Your task to perform on an android device: Turn off the flashlight Image 0: 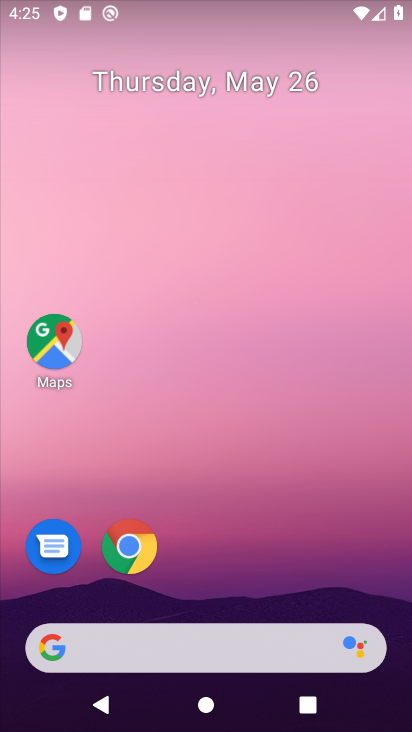
Step 0: drag from (210, 5) to (317, 515)
Your task to perform on an android device: Turn off the flashlight Image 1: 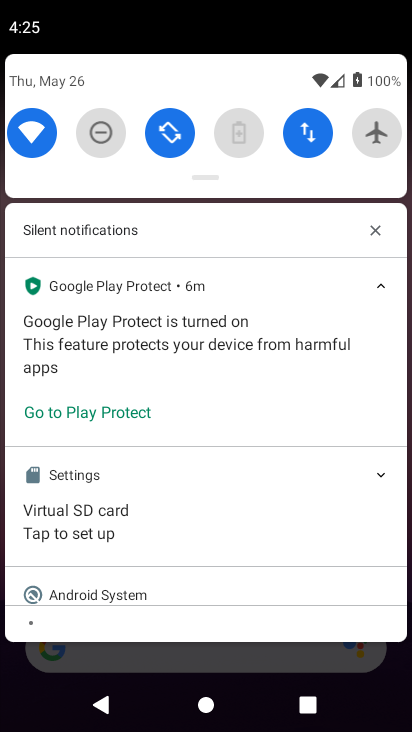
Step 1: drag from (210, 156) to (292, 618)
Your task to perform on an android device: Turn off the flashlight Image 2: 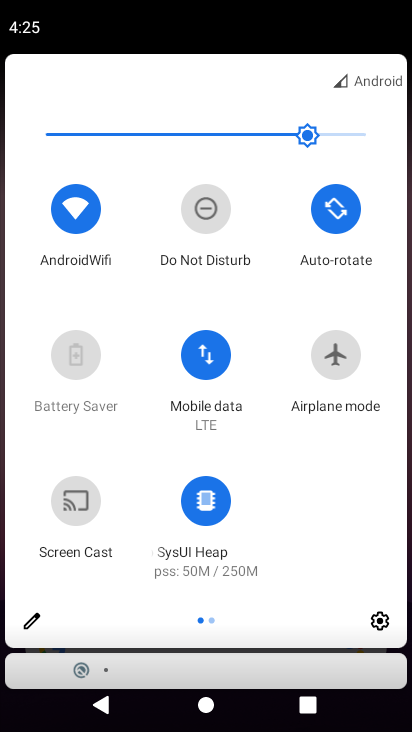
Step 2: click (36, 617)
Your task to perform on an android device: Turn off the flashlight Image 3: 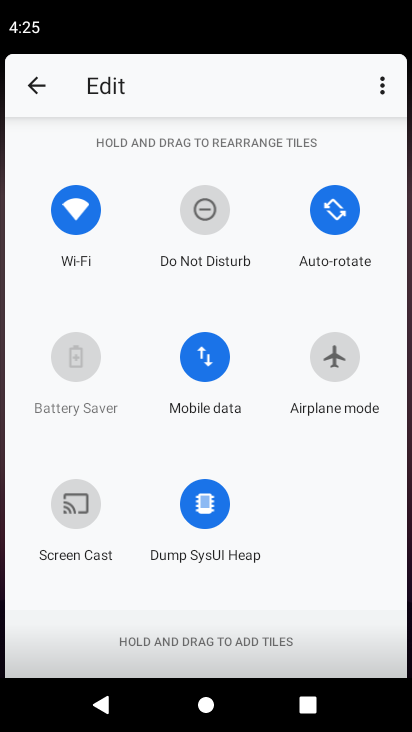
Step 3: task complete